Your task to perform on an android device: star an email in the gmail app Image 0: 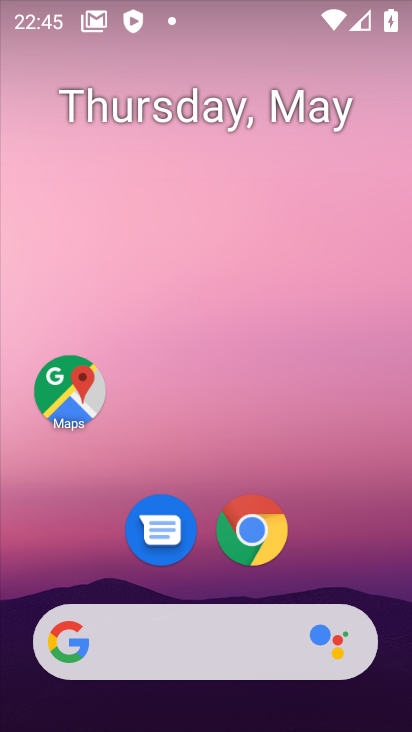
Step 0: drag from (356, 541) to (341, 158)
Your task to perform on an android device: star an email in the gmail app Image 1: 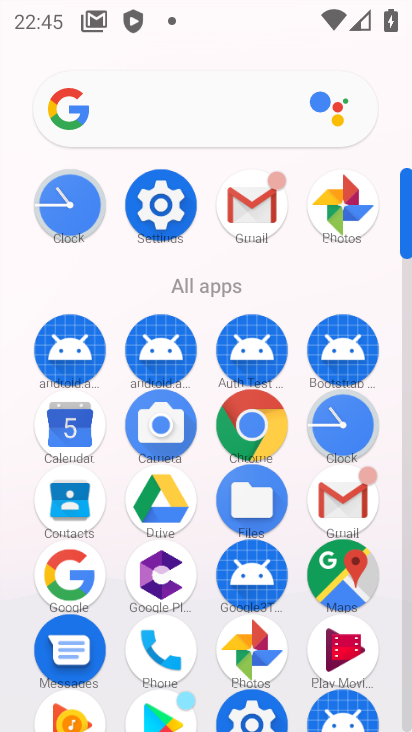
Step 1: click (262, 228)
Your task to perform on an android device: star an email in the gmail app Image 2: 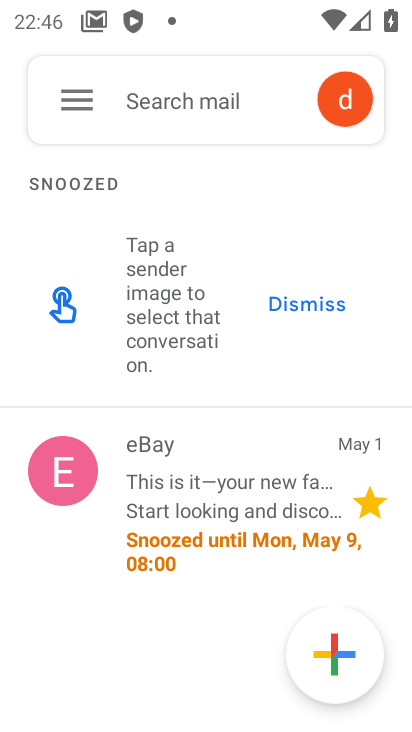
Step 2: click (77, 94)
Your task to perform on an android device: star an email in the gmail app Image 3: 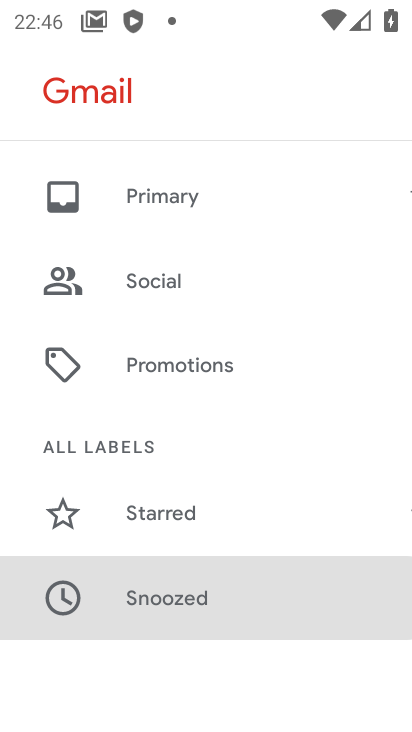
Step 3: click (190, 194)
Your task to perform on an android device: star an email in the gmail app Image 4: 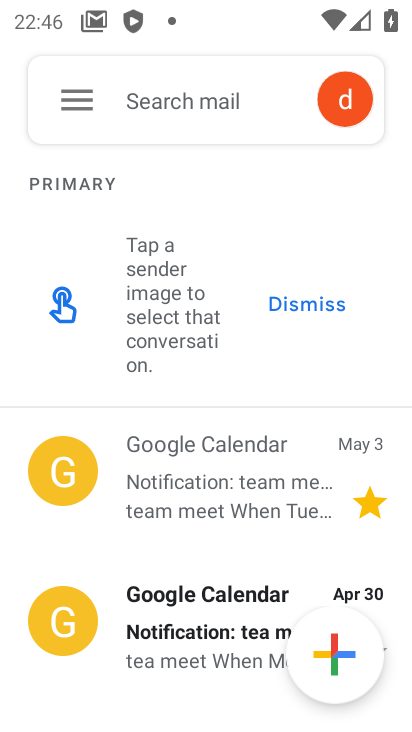
Step 4: drag from (296, 541) to (266, 254)
Your task to perform on an android device: star an email in the gmail app Image 5: 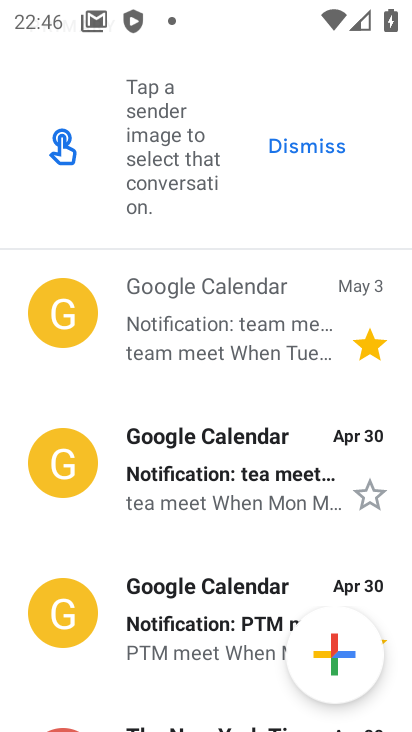
Step 5: click (372, 499)
Your task to perform on an android device: star an email in the gmail app Image 6: 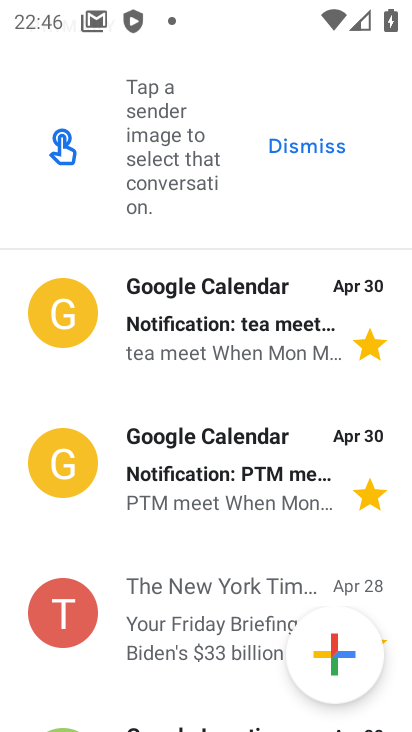
Step 6: task complete